Your task to perform on an android device: stop showing notifications on the lock screen Image 0: 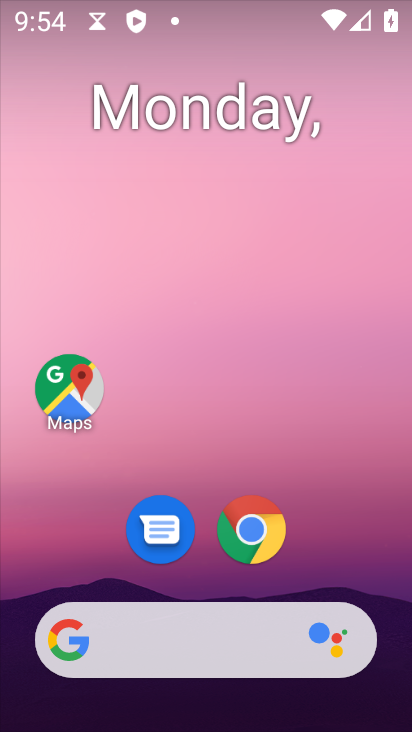
Step 0: drag from (332, 551) to (296, 0)
Your task to perform on an android device: stop showing notifications on the lock screen Image 1: 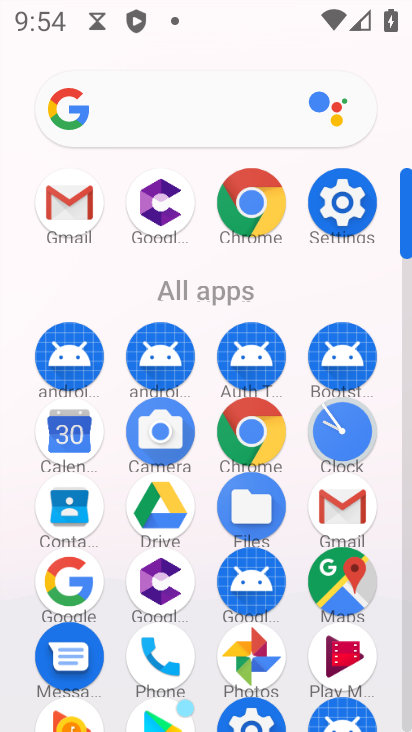
Step 1: click (340, 199)
Your task to perform on an android device: stop showing notifications on the lock screen Image 2: 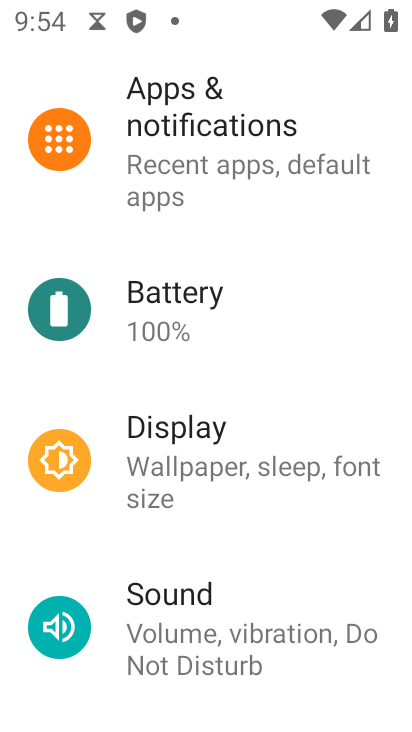
Step 2: drag from (276, 226) to (269, 320)
Your task to perform on an android device: stop showing notifications on the lock screen Image 3: 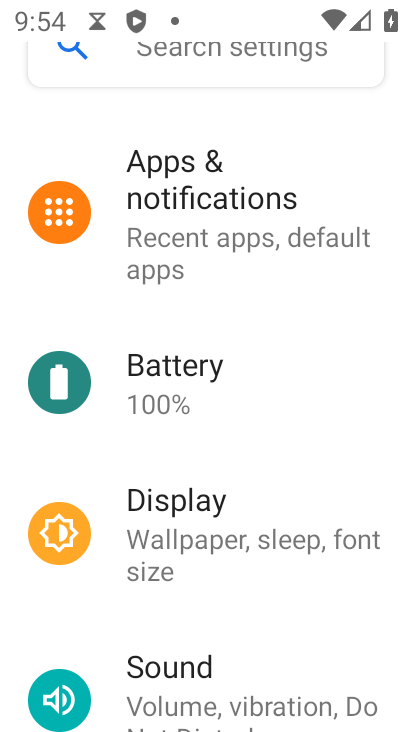
Step 3: click (221, 202)
Your task to perform on an android device: stop showing notifications on the lock screen Image 4: 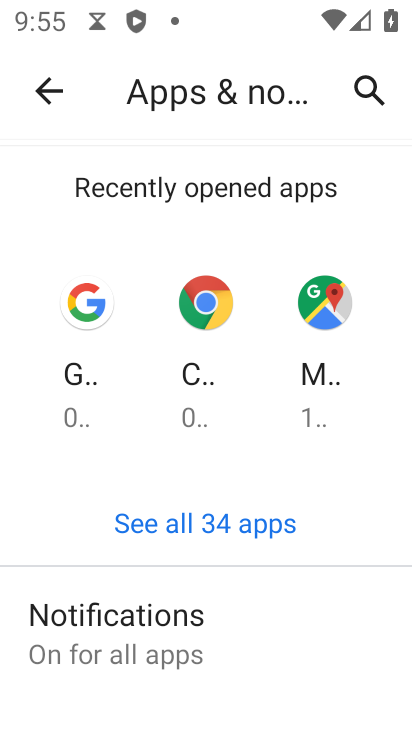
Step 4: click (105, 622)
Your task to perform on an android device: stop showing notifications on the lock screen Image 5: 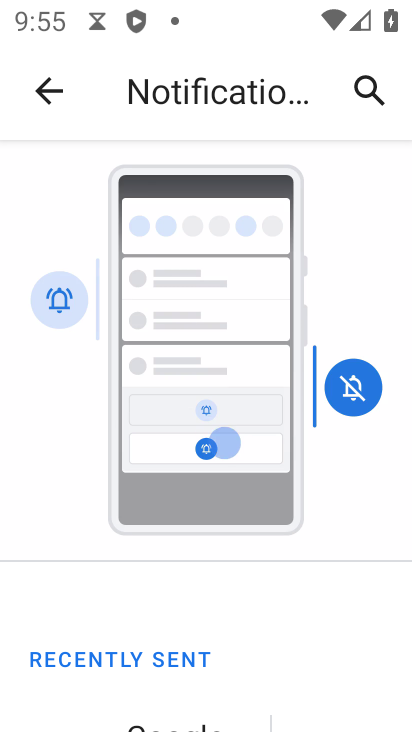
Step 5: drag from (187, 605) to (280, 465)
Your task to perform on an android device: stop showing notifications on the lock screen Image 6: 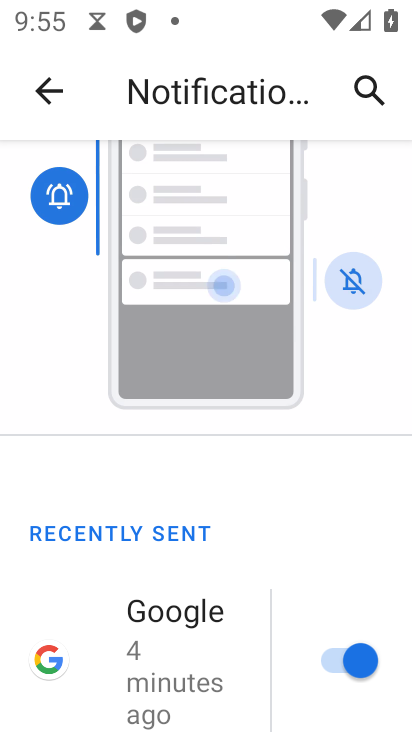
Step 6: drag from (229, 544) to (309, 423)
Your task to perform on an android device: stop showing notifications on the lock screen Image 7: 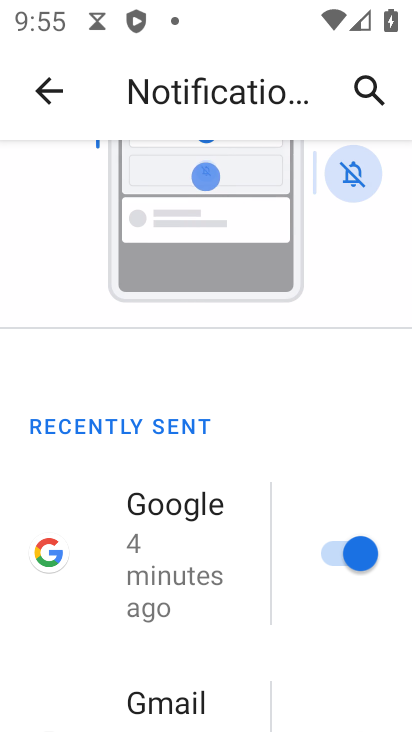
Step 7: drag from (173, 664) to (261, 500)
Your task to perform on an android device: stop showing notifications on the lock screen Image 8: 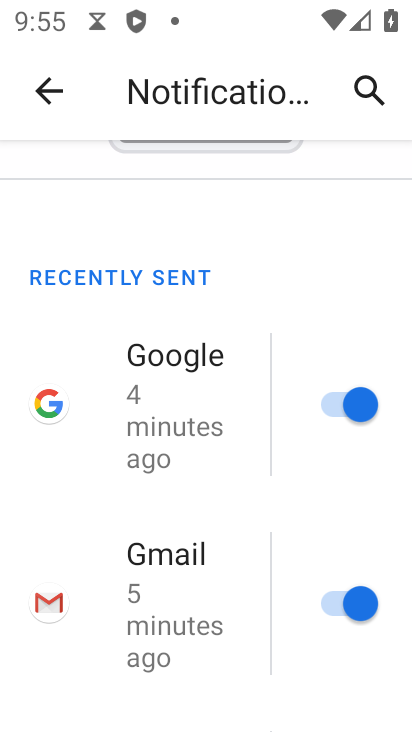
Step 8: drag from (167, 694) to (237, 526)
Your task to perform on an android device: stop showing notifications on the lock screen Image 9: 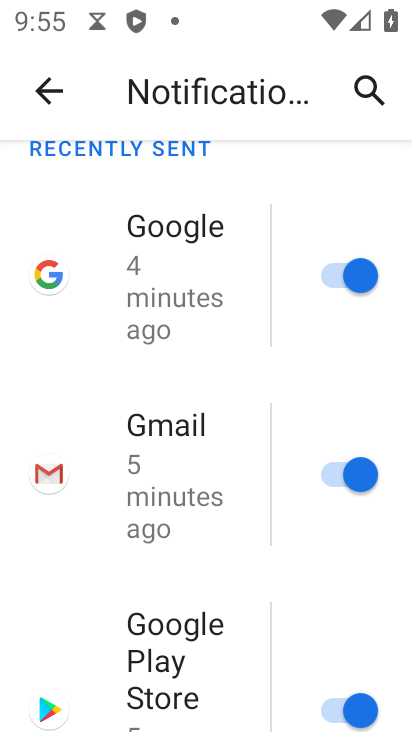
Step 9: drag from (187, 576) to (230, 414)
Your task to perform on an android device: stop showing notifications on the lock screen Image 10: 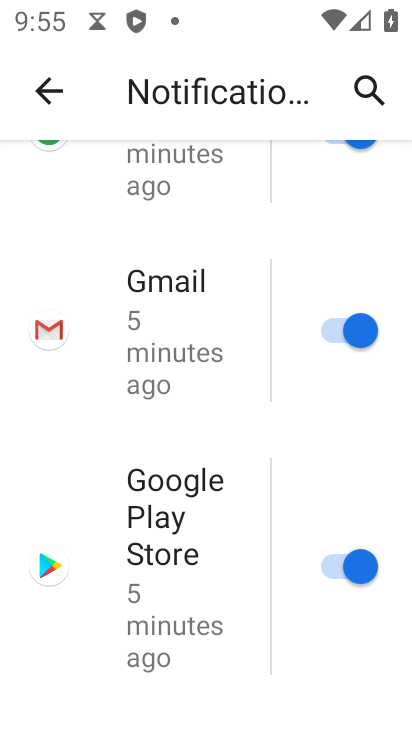
Step 10: drag from (192, 675) to (264, 456)
Your task to perform on an android device: stop showing notifications on the lock screen Image 11: 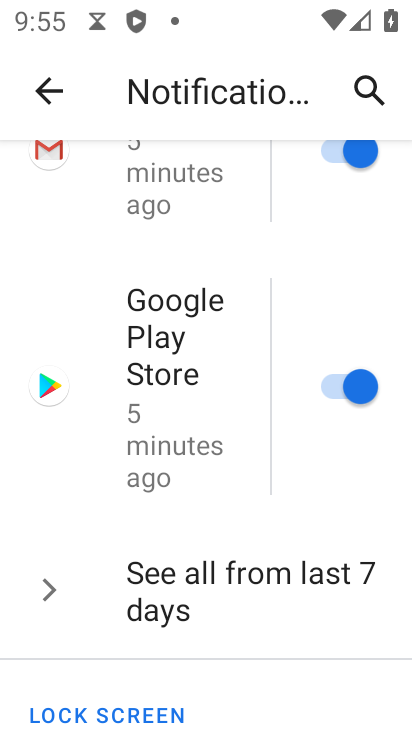
Step 11: drag from (126, 670) to (221, 546)
Your task to perform on an android device: stop showing notifications on the lock screen Image 12: 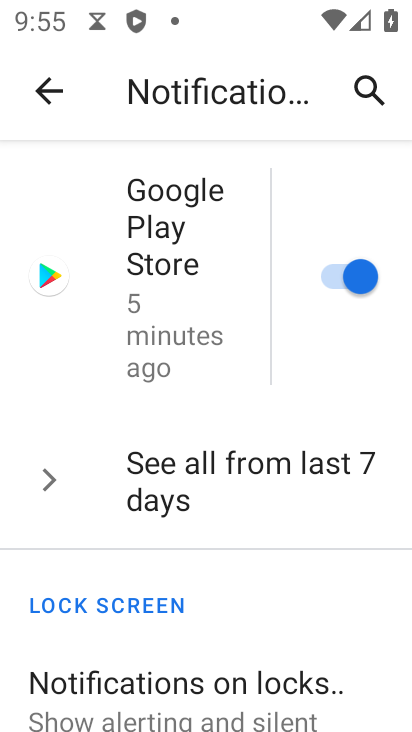
Step 12: drag from (154, 642) to (226, 521)
Your task to perform on an android device: stop showing notifications on the lock screen Image 13: 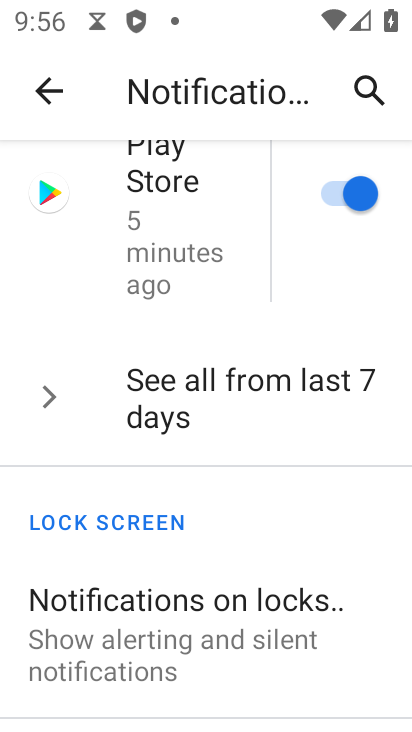
Step 13: drag from (98, 553) to (161, 457)
Your task to perform on an android device: stop showing notifications on the lock screen Image 14: 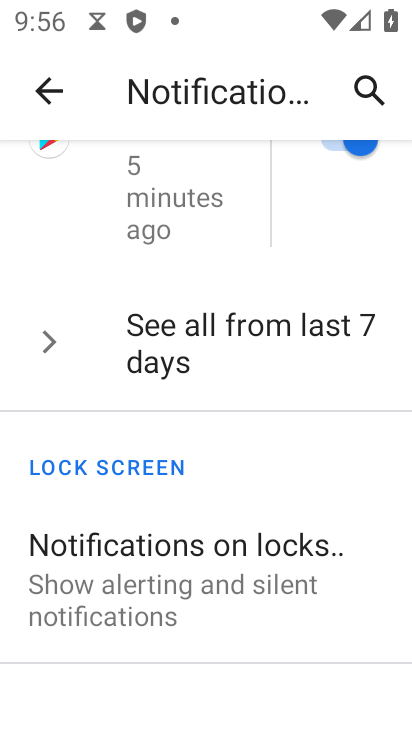
Step 14: drag from (123, 688) to (200, 499)
Your task to perform on an android device: stop showing notifications on the lock screen Image 15: 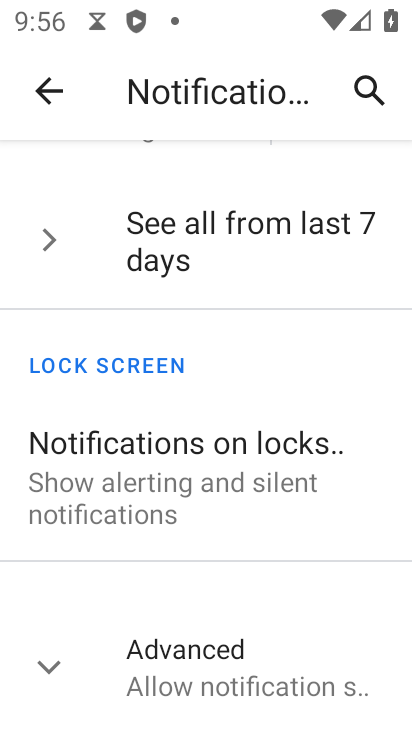
Step 15: click (182, 494)
Your task to perform on an android device: stop showing notifications on the lock screen Image 16: 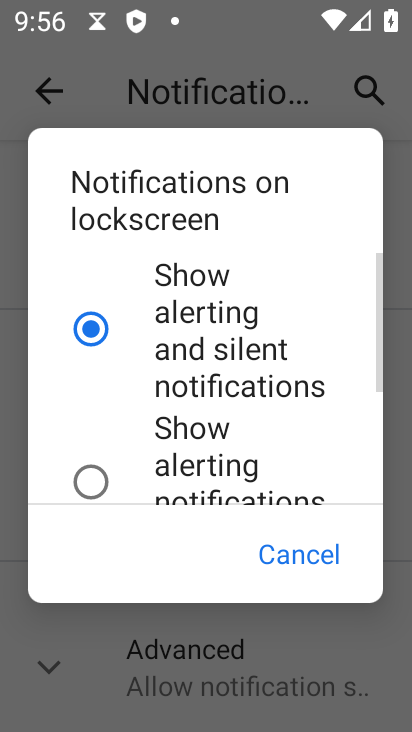
Step 16: drag from (158, 445) to (255, 288)
Your task to perform on an android device: stop showing notifications on the lock screen Image 17: 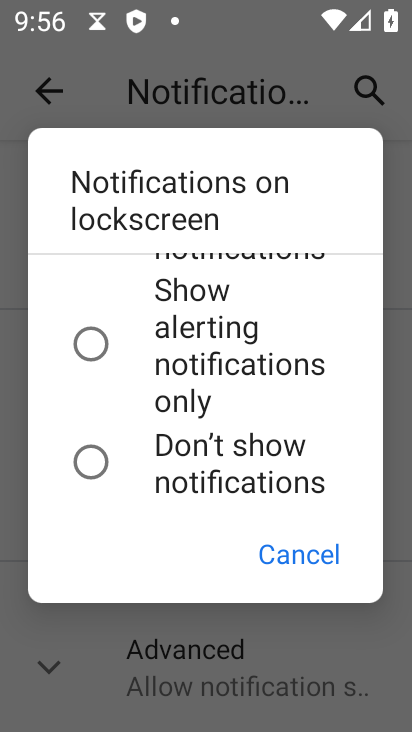
Step 17: click (105, 460)
Your task to perform on an android device: stop showing notifications on the lock screen Image 18: 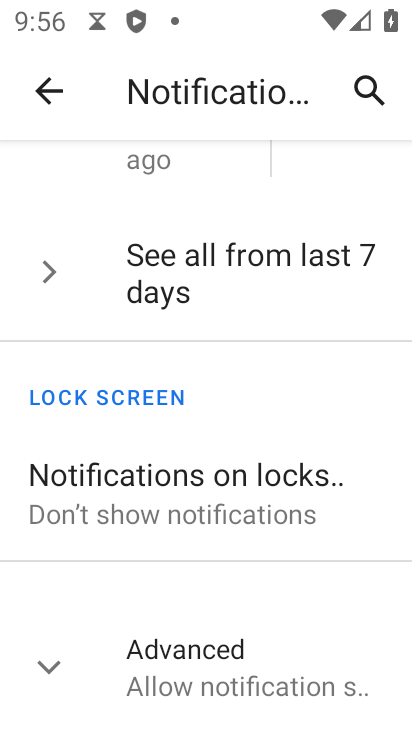
Step 18: task complete